Your task to perform on an android device: Go to CNN.com Image 0: 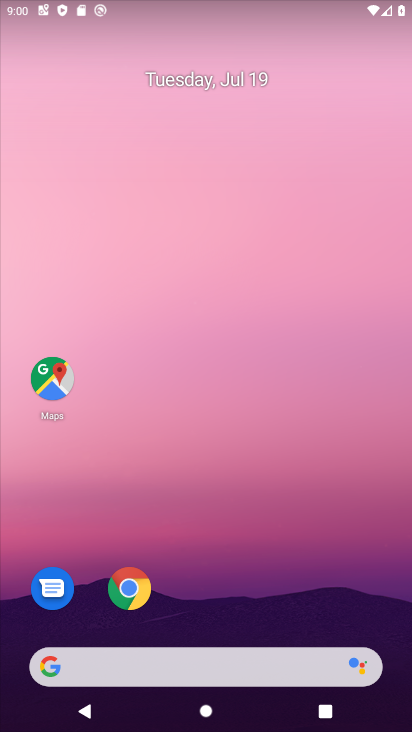
Step 0: click (232, 653)
Your task to perform on an android device: Go to CNN.com Image 1: 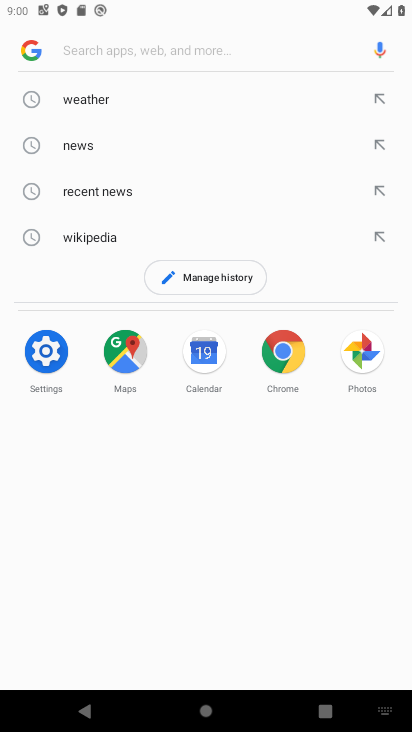
Step 1: type "cnn.com"
Your task to perform on an android device: Go to CNN.com Image 2: 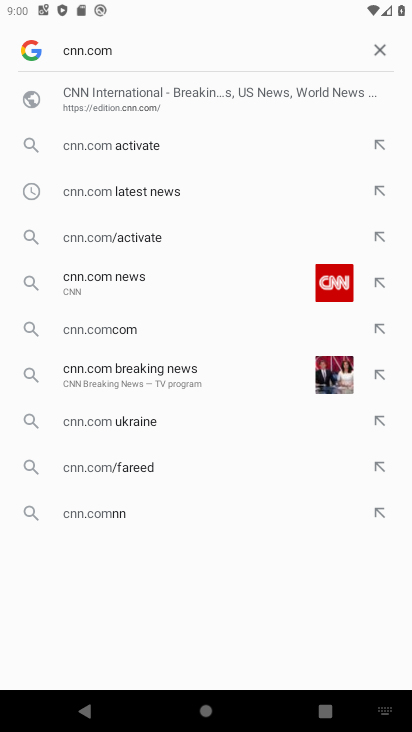
Step 2: click (96, 97)
Your task to perform on an android device: Go to CNN.com Image 3: 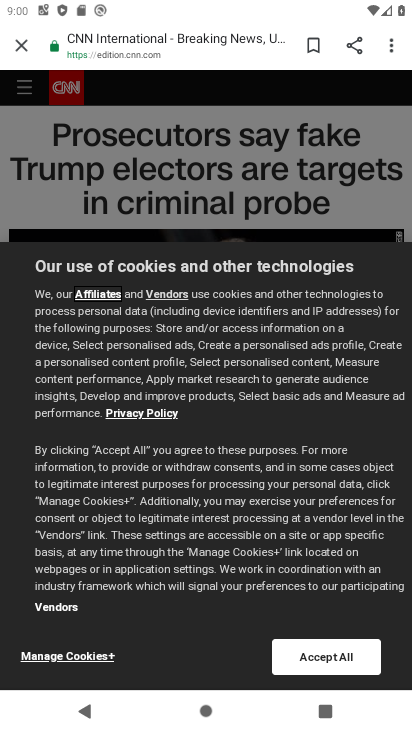
Step 3: task complete